Your task to perform on an android device: What's the weather going to be this weekend? Image 0: 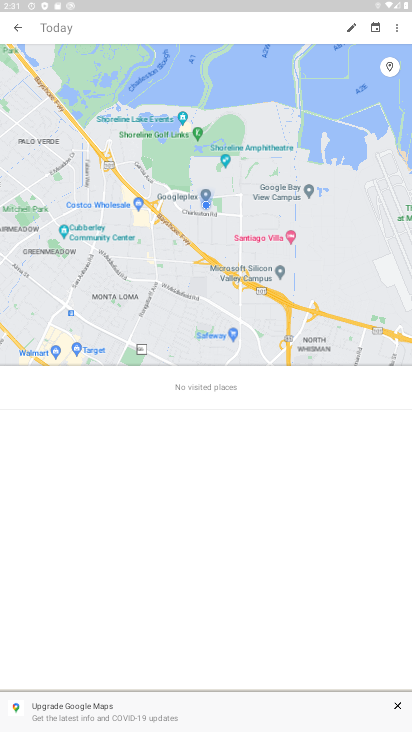
Step 0: press home button
Your task to perform on an android device: What's the weather going to be this weekend? Image 1: 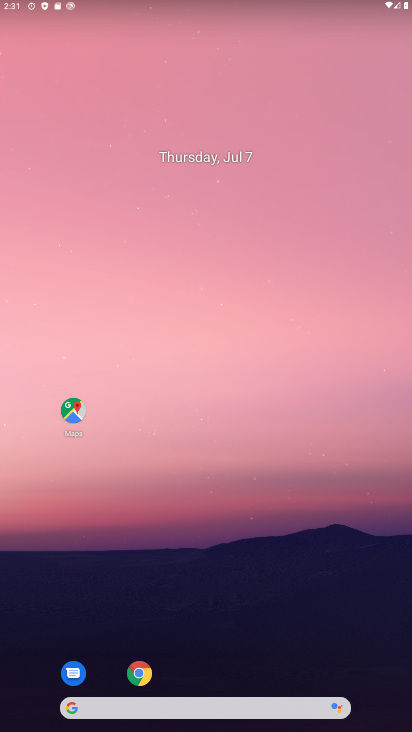
Step 1: drag from (219, 698) to (232, 18)
Your task to perform on an android device: What's the weather going to be this weekend? Image 2: 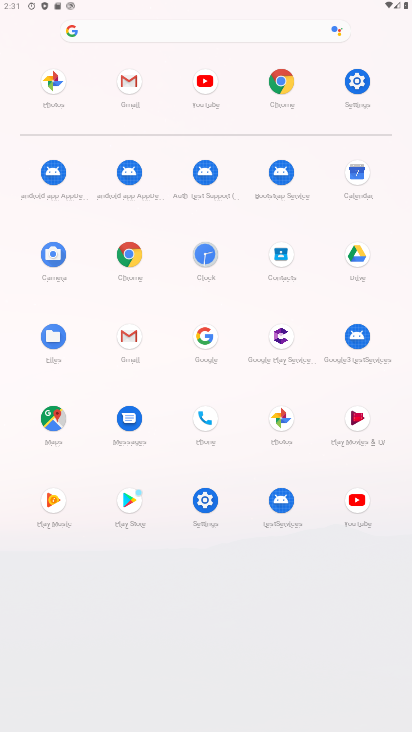
Step 2: click (200, 342)
Your task to perform on an android device: What's the weather going to be this weekend? Image 3: 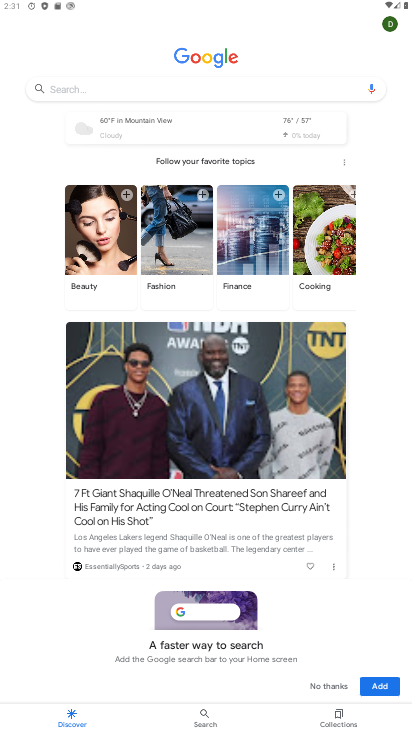
Step 3: click (173, 117)
Your task to perform on an android device: What's the weather going to be this weekend? Image 4: 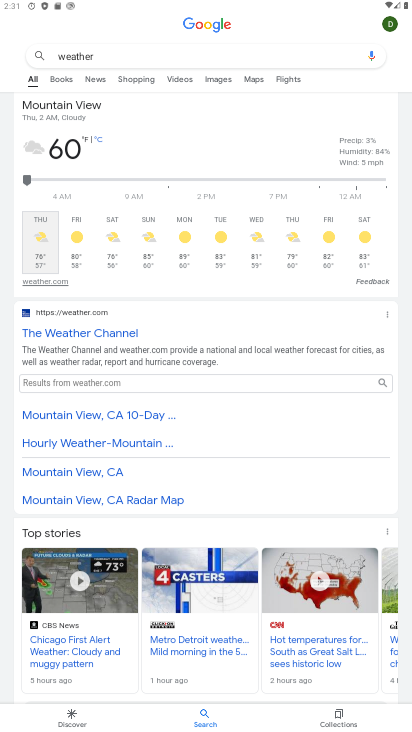
Step 4: task complete